Your task to perform on an android device: search for starred emails in the gmail app Image 0: 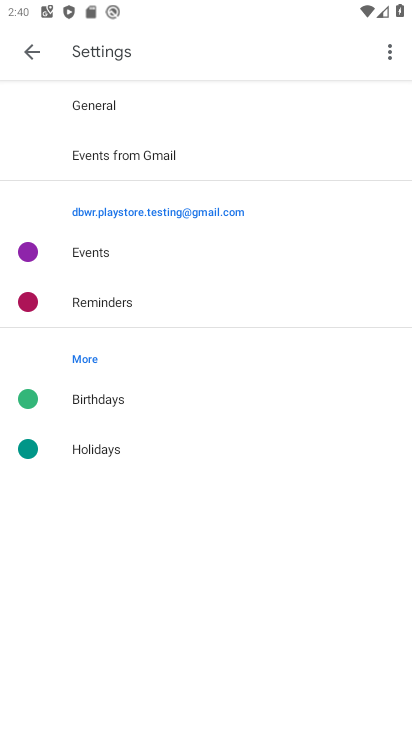
Step 0: press home button
Your task to perform on an android device: search for starred emails in the gmail app Image 1: 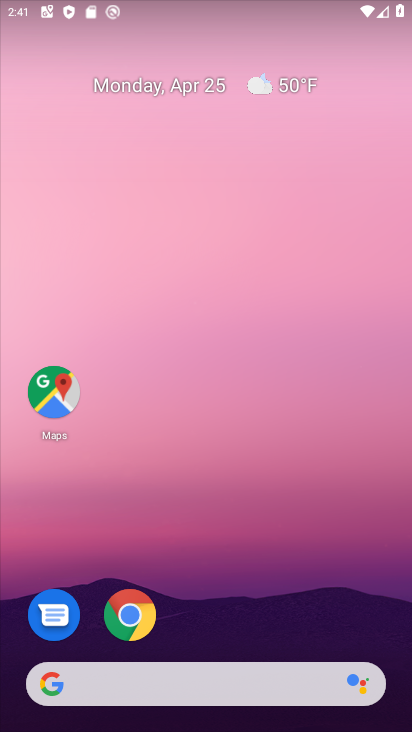
Step 1: drag from (214, 725) to (187, 196)
Your task to perform on an android device: search for starred emails in the gmail app Image 2: 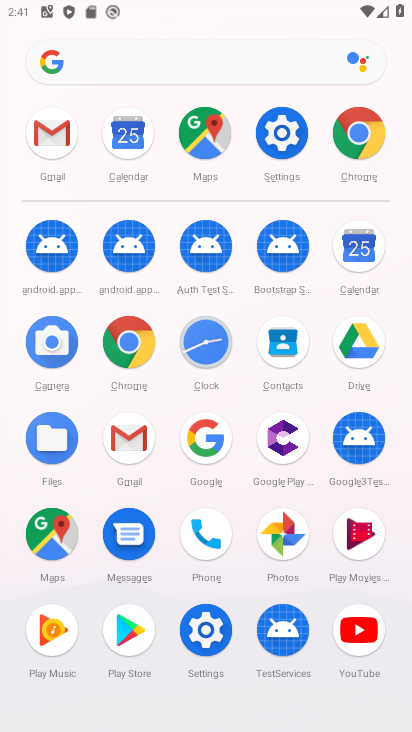
Step 2: click (129, 437)
Your task to perform on an android device: search for starred emails in the gmail app Image 3: 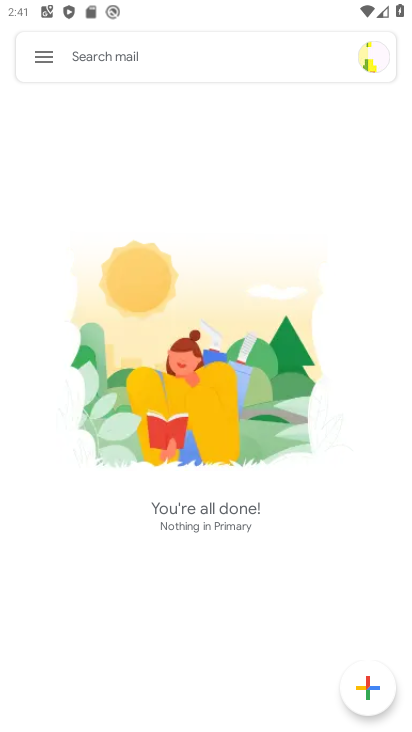
Step 3: click (41, 59)
Your task to perform on an android device: search for starred emails in the gmail app Image 4: 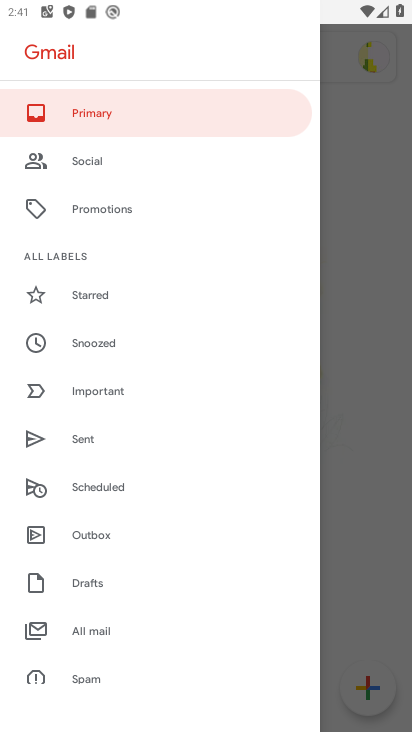
Step 4: click (92, 290)
Your task to perform on an android device: search for starred emails in the gmail app Image 5: 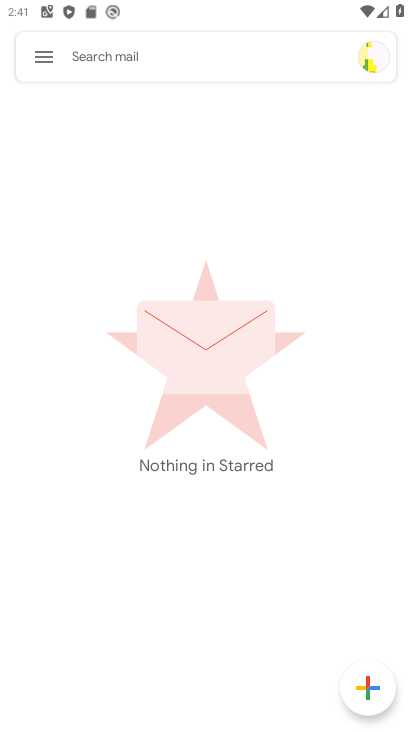
Step 5: task complete